Your task to perform on an android device: change the clock style Image 0: 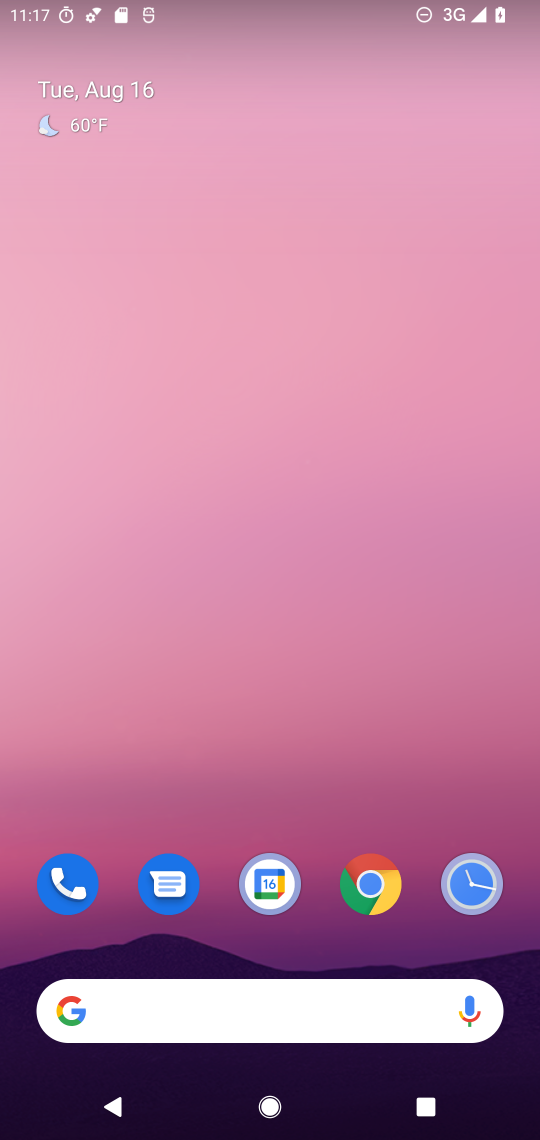
Step 0: drag from (232, 256) to (217, 92)
Your task to perform on an android device: change the clock style Image 1: 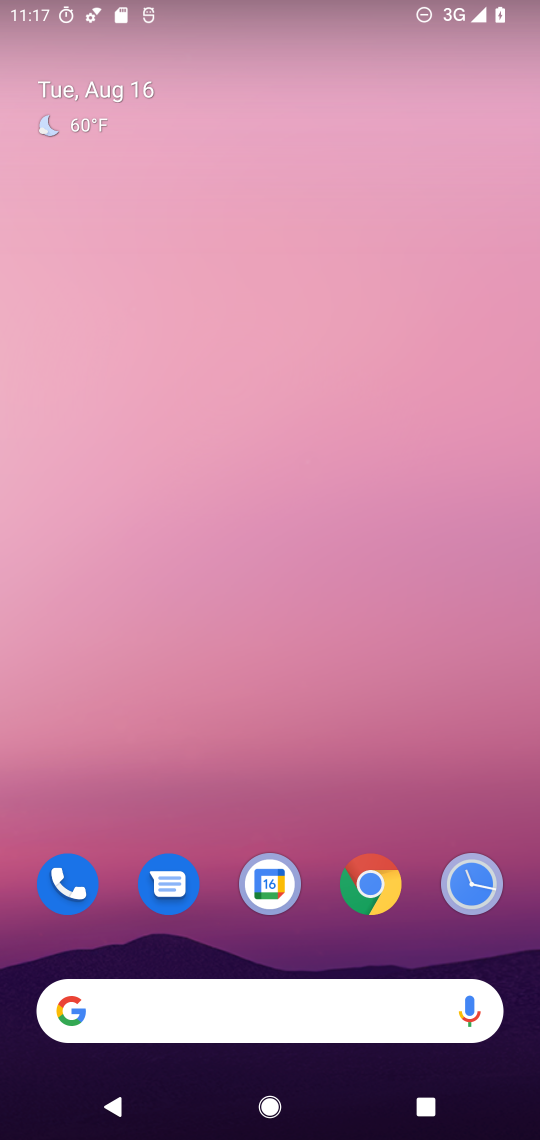
Step 1: drag from (253, 744) to (253, 373)
Your task to perform on an android device: change the clock style Image 2: 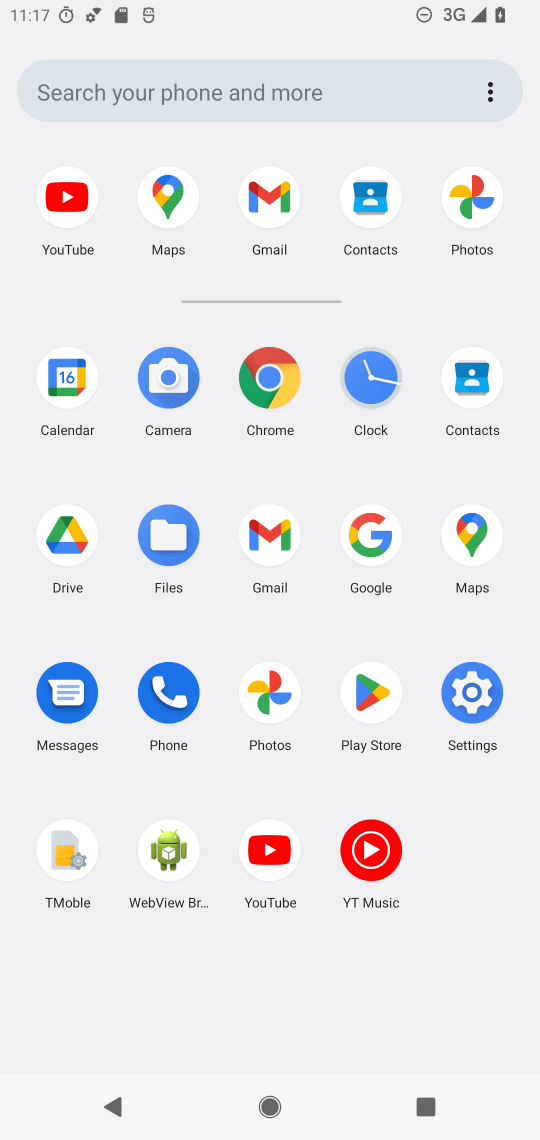
Step 2: click (373, 393)
Your task to perform on an android device: change the clock style Image 3: 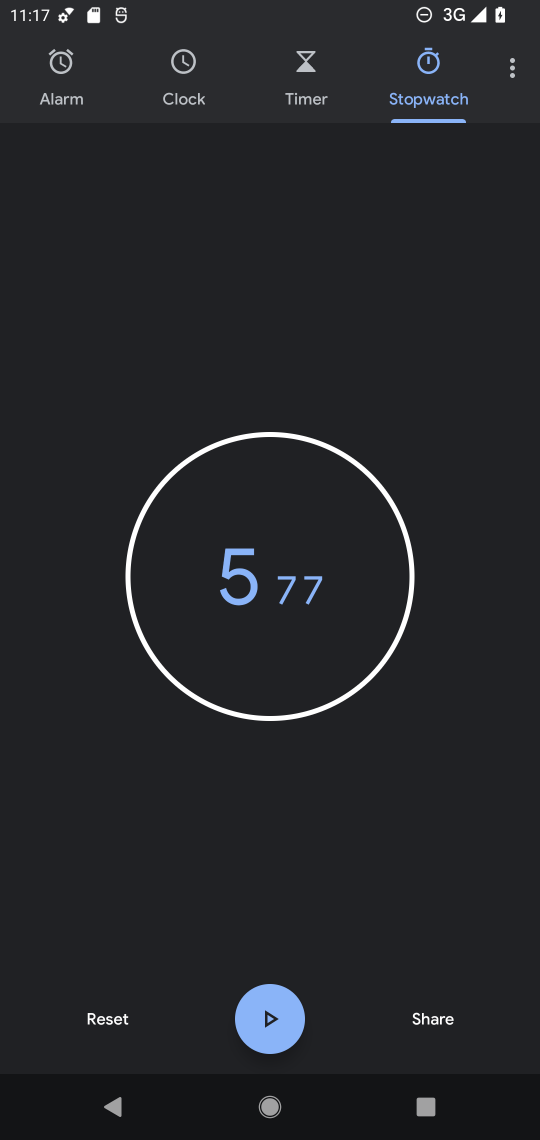
Step 3: click (507, 72)
Your task to perform on an android device: change the clock style Image 4: 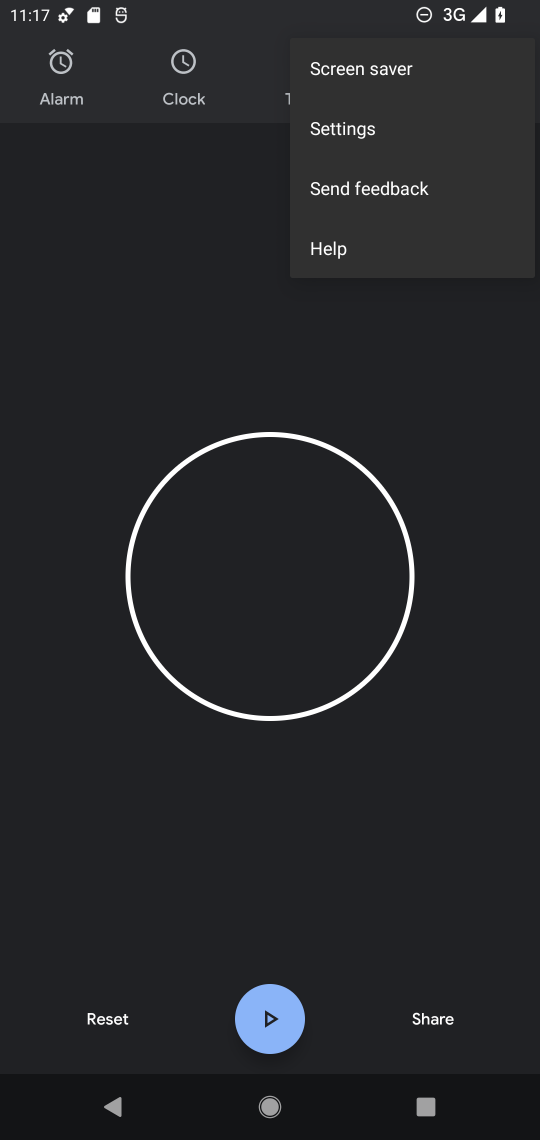
Step 4: click (361, 127)
Your task to perform on an android device: change the clock style Image 5: 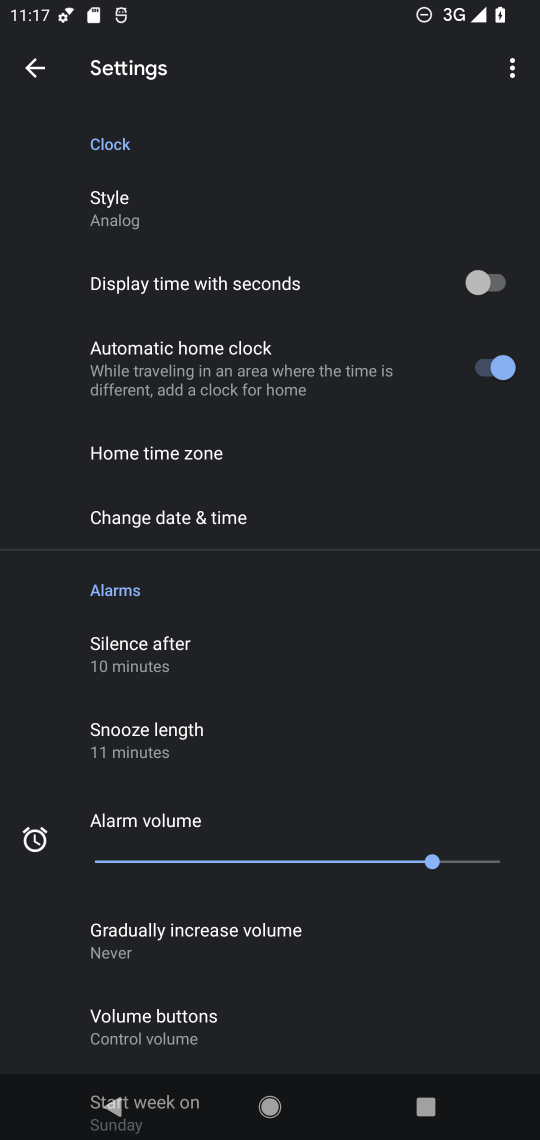
Step 5: click (123, 212)
Your task to perform on an android device: change the clock style Image 6: 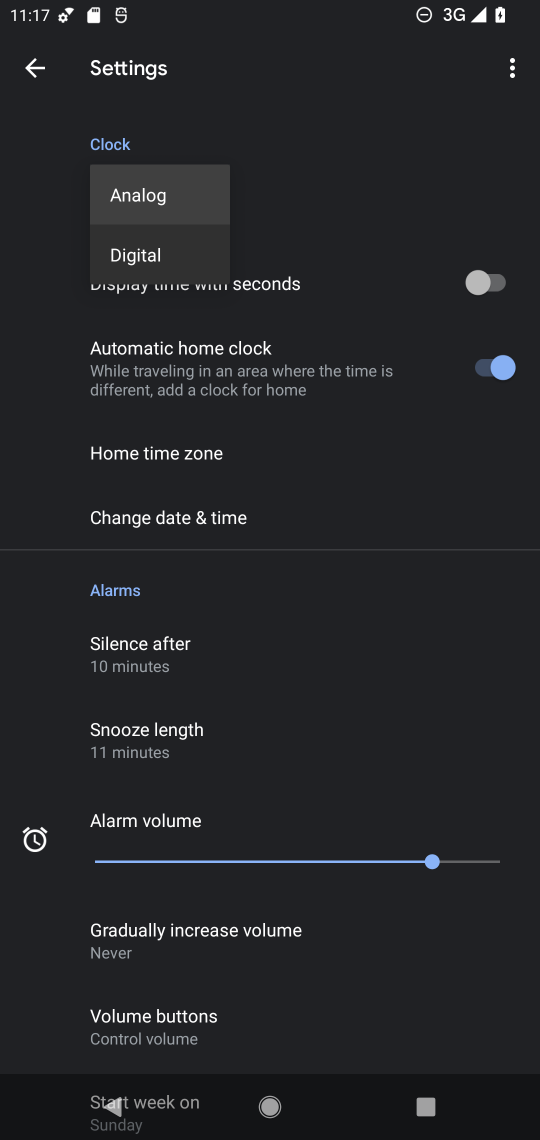
Step 6: click (143, 264)
Your task to perform on an android device: change the clock style Image 7: 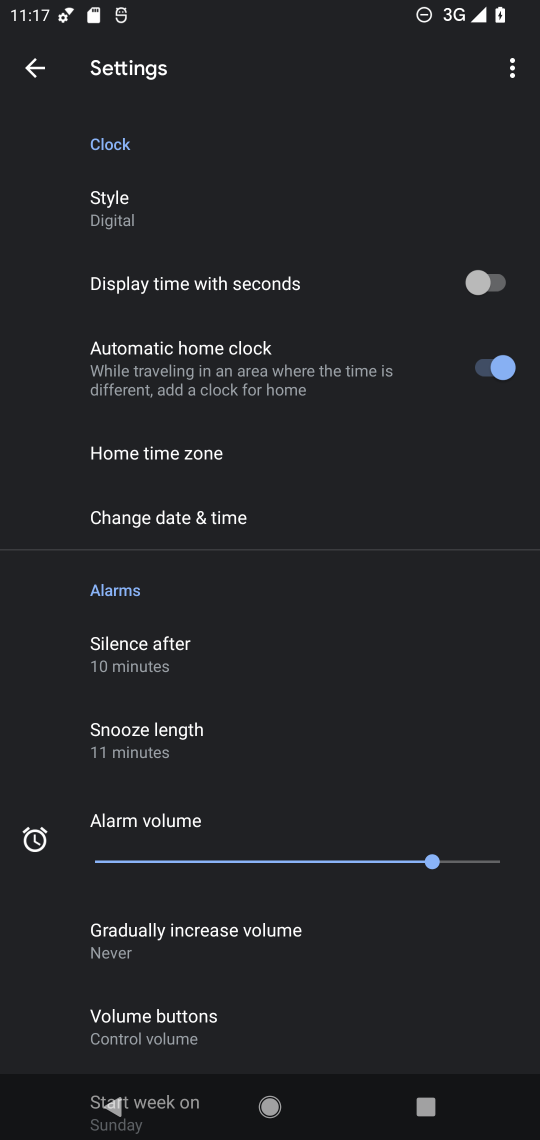
Step 7: task complete